Your task to perform on an android device: Show me recent news Image 0: 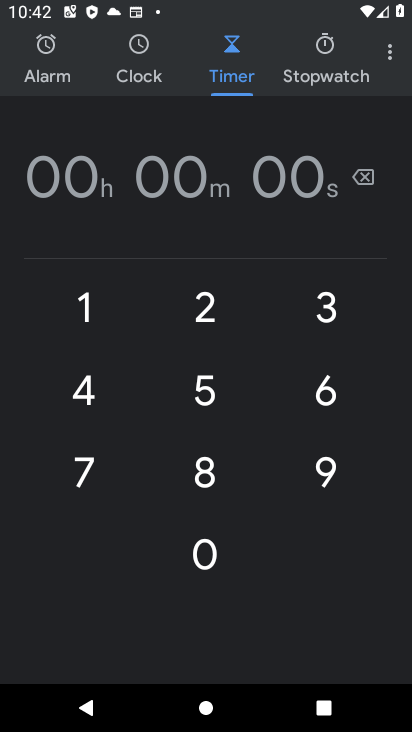
Step 0: press home button
Your task to perform on an android device: Show me recent news Image 1: 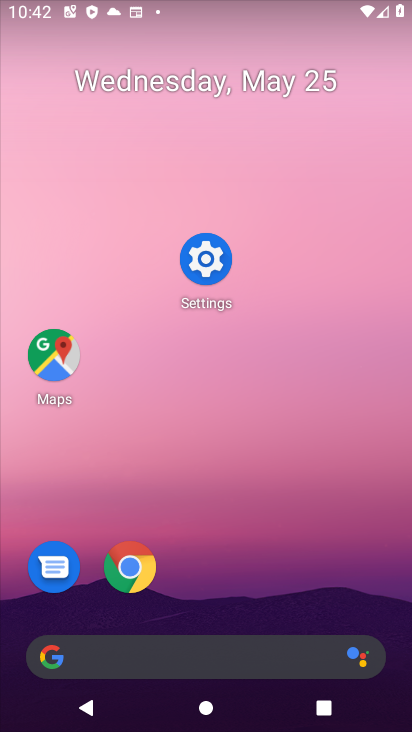
Step 1: drag from (314, 583) to (370, 65)
Your task to perform on an android device: Show me recent news Image 2: 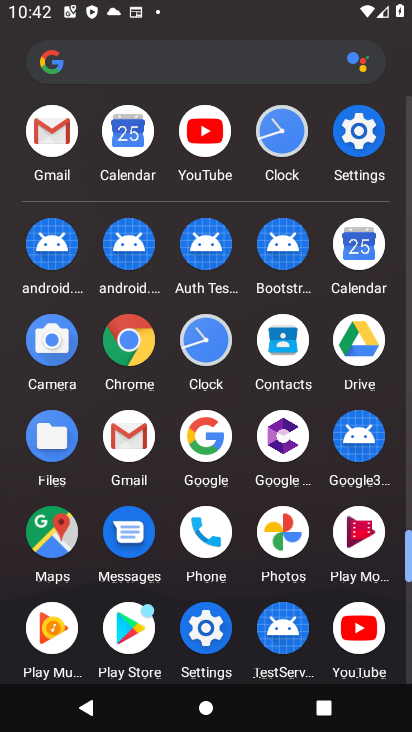
Step 2: click (226, 65)
Your task to perform on an android device: Show me recent news Image 3: 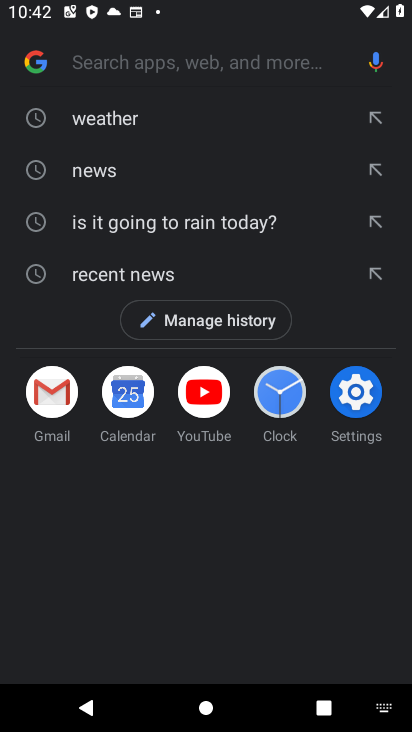
Step 3: click (123, 261)
Your task to perform on an android device: Show me recent news Image 4: 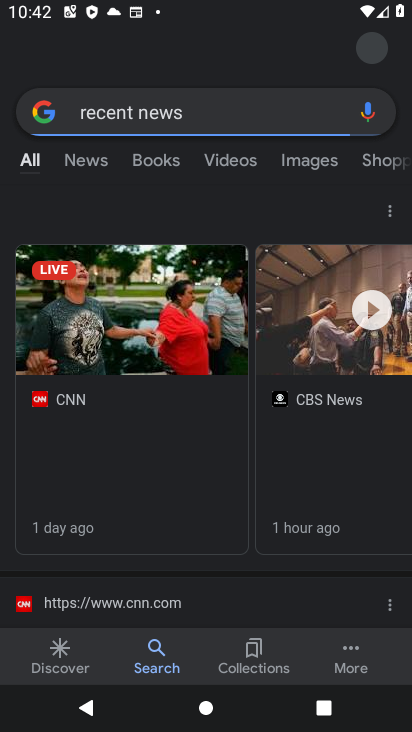
Step 4: task complete